Your task to perform on an android device: empty trash in the gmail app Image 0: 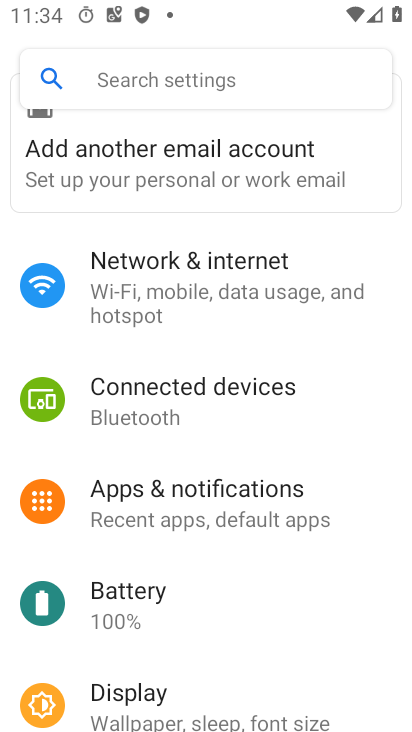
Step 0: press home button
Your task to perform on an android device: empty trash in the gmail app Image 1: 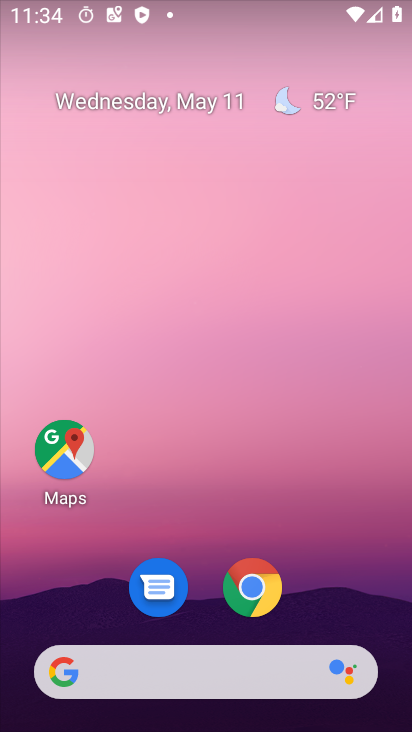
Step 1: drag from (262, 690) to (296, 356)
Your task to perform on an android device: empty trash in the gmail app Image 2: 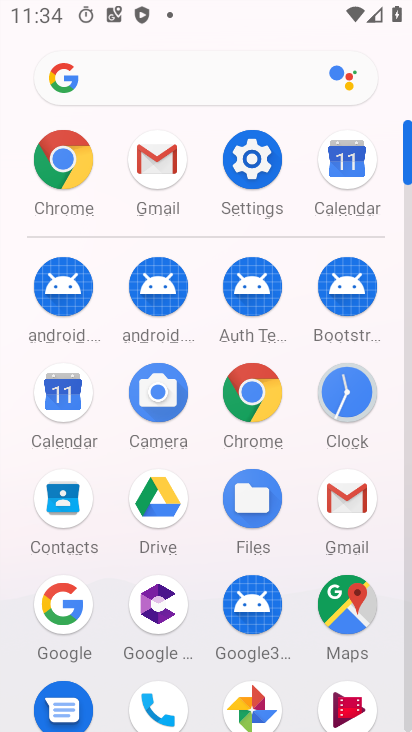
Step 2: click (157, 173)
Your task to perform on an android device: empty trash in the gmail app Image 3: 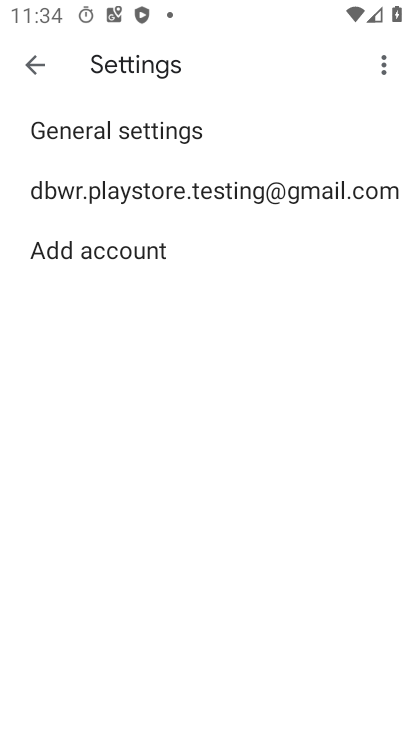
Step 3: click (34, 65)
Your task to perform on an android device: empty trash in the gmail app Image 4: 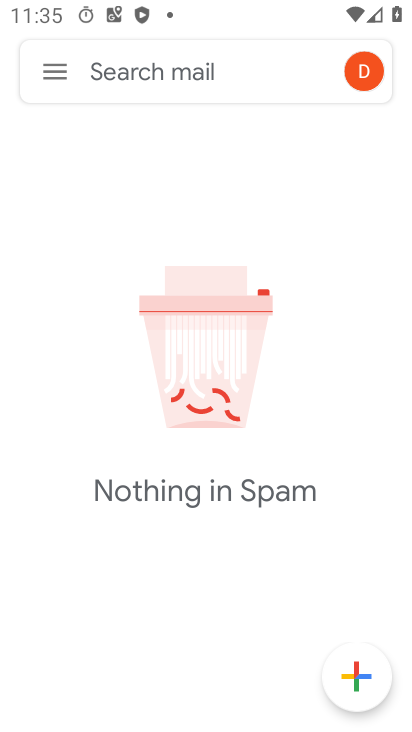
Step 4: click (41, 74)
Your task to perform on an android device: empty trash in the gmail app Image 5: 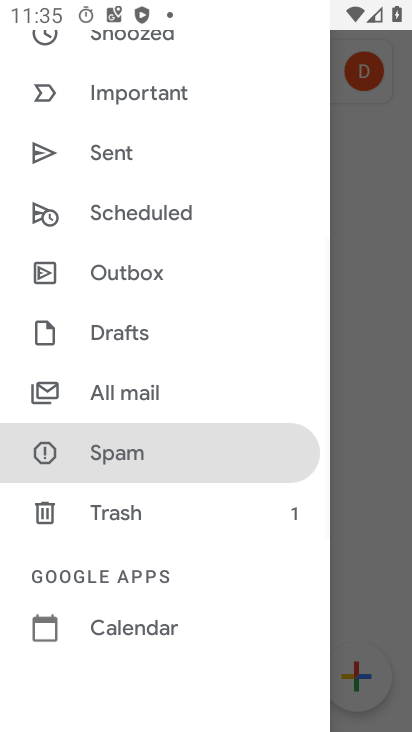
Step 5: click (110, 530)
Your task to perform on an android device: empty trash in the gmail app Image 6: 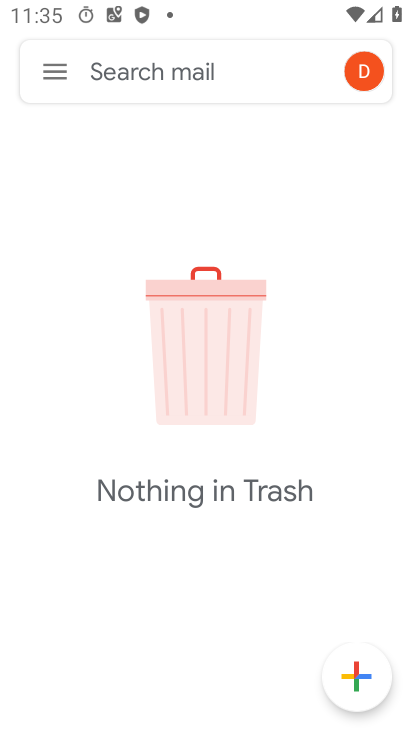
Step 6: task complete